Your task to perform on an android device: Open calendar and show me the first week of next month Image 0: 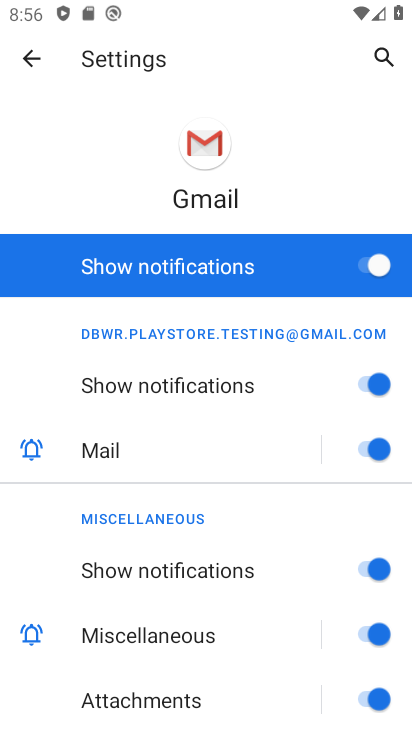
Step 0: press home button
Your task to perform on an android device: Open calendar and show me the first week of next month Image 1: 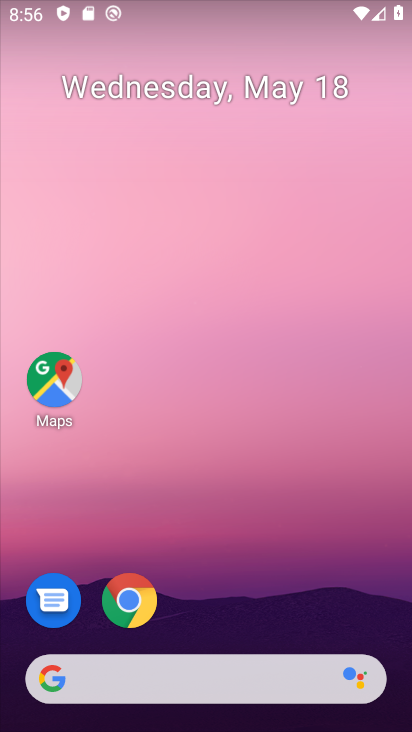
Step 1: drag from (15, 504) to (164, 199)
Your task to perform on an android device: Open calendar and show me the first week of next month Image 2: 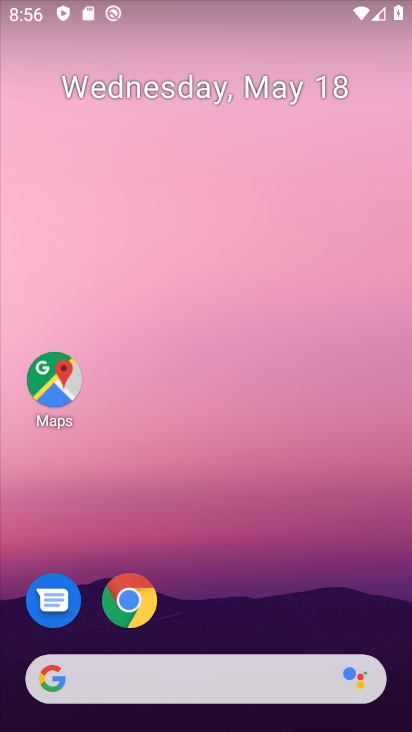
Step 2: drag from (12, 624) to (288, 141)
Your task to perform on an android device: Open calendar and show me the first week of next month Image 3: 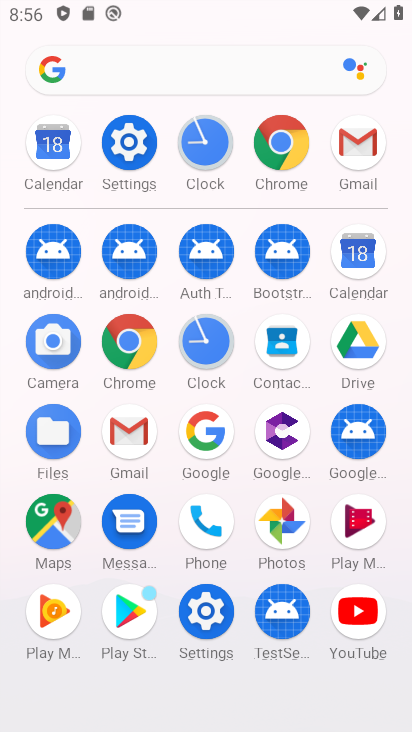
Step 3: click (347, 252)
Your task to perform on an android device: Open calendar and show me the first week of next month Image 4: 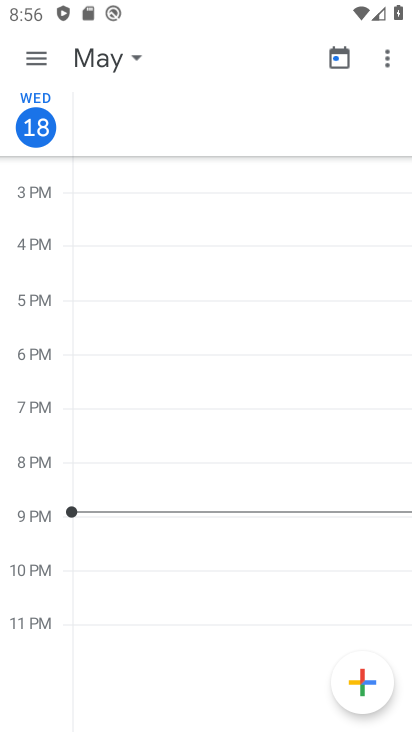
Step 4: click (99, 63)
Your task to perform on an android device: Open calendar and show me the first week of next month Image 5: 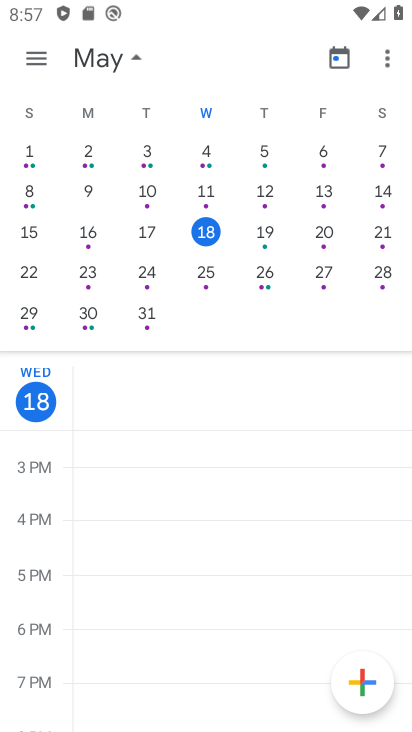
Step 5: drag from (372, 181) to (14, 130)
Your task to perform on an android device: Open calendar and show me the first week of next month Image 6: 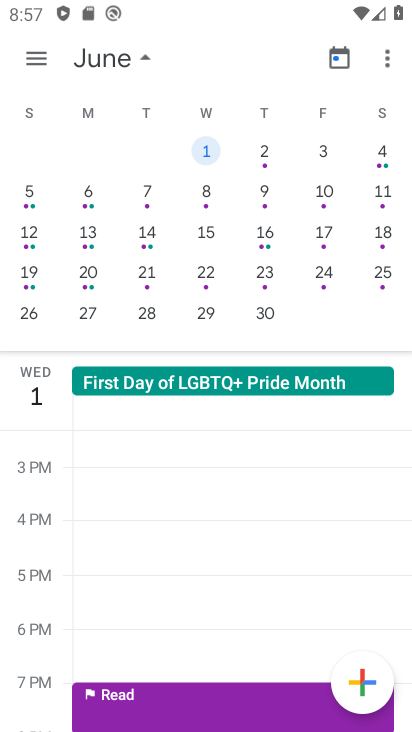
Step 6: click (262, 154)
Your task to perform on an android device: Open calendar and show me the first week of next month Image 7: 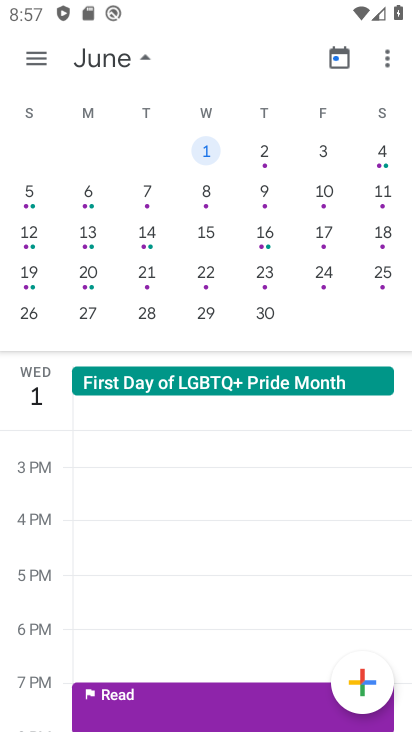
Step 7: click (338, 155)
Your task to perform on an android device: Open calendar and show me the first week of next month Image 8: 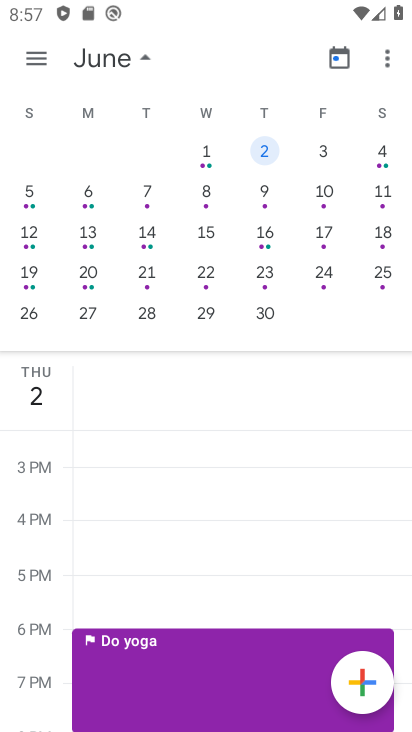
Step 8: click (318, 147)
Your task to perform on an android device: Open calendar and show me the first week of next month Image 9: 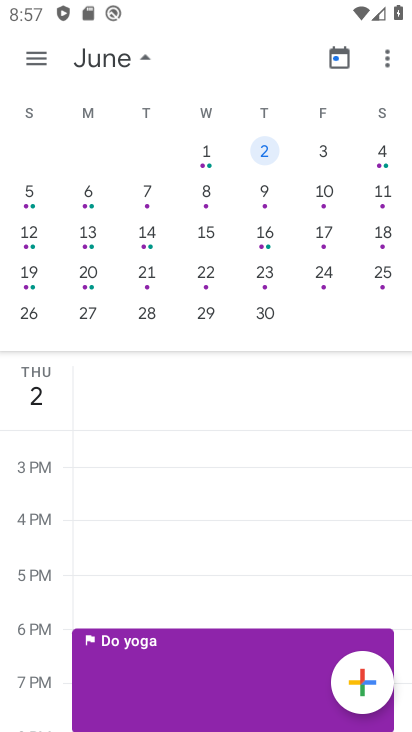
Step 9: task complete